Your task to perform on an android device: turn off location history Image 0: 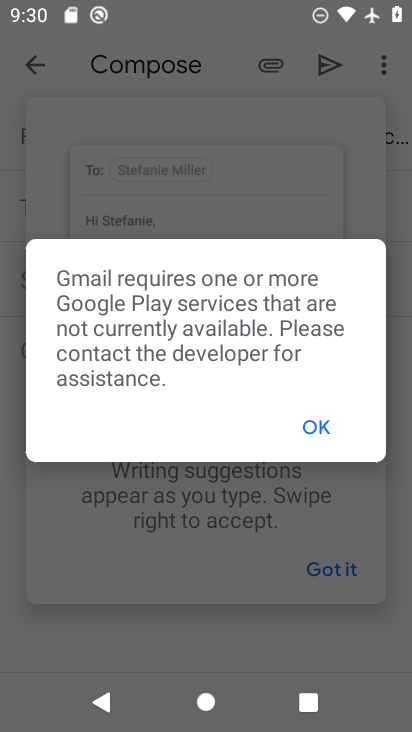
Step 0: press home button
Your task to perform on an android device: turn off location history Image 1: 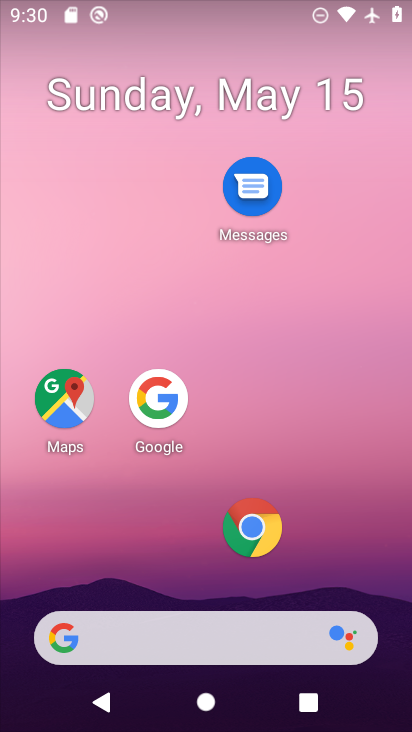
Step 1: click (55, 410)
Your task to perform on an android device: turn off location history Image 2: 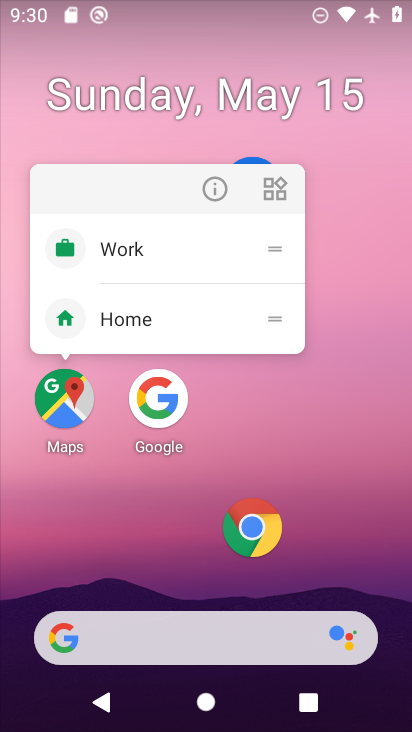
Step 2: click (61, 408)
Your task to perform on an android device: turn off location history Image 3: 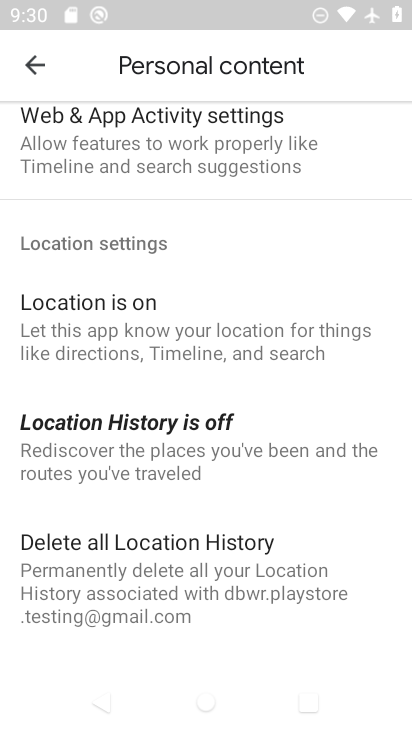
Step 3: click (172, 436)
Your task to perform on an android device: turn off location history Image 4: 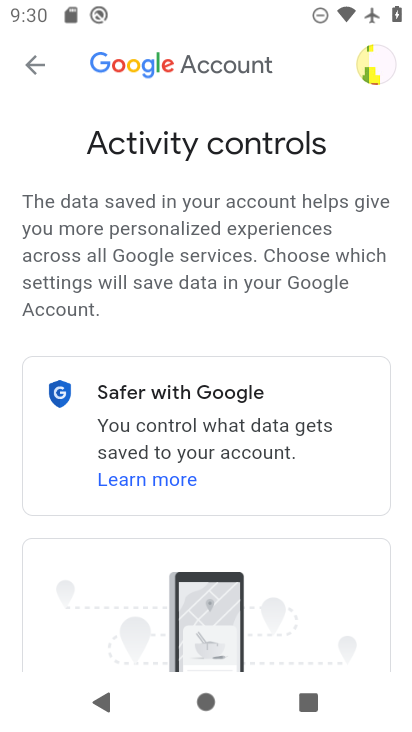
Step 4: task complete